Your task to perform on an android device: toggle javascript in the chrome app Image 0: 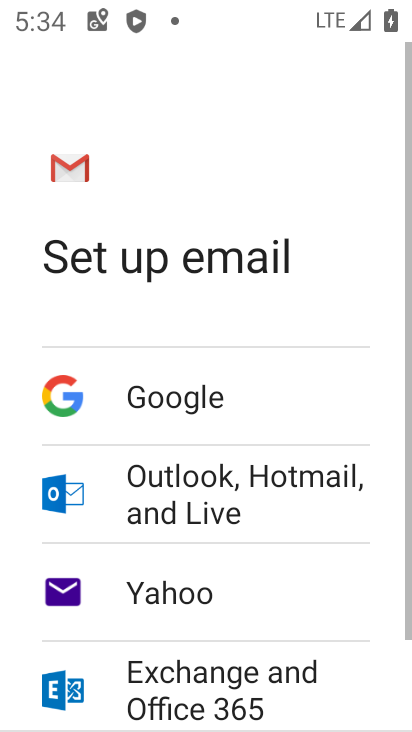
Step 0: drag from (197, 570) to (229, 351)
Your task to perform on an android device: toggle javascript in the chrome app Image 1: 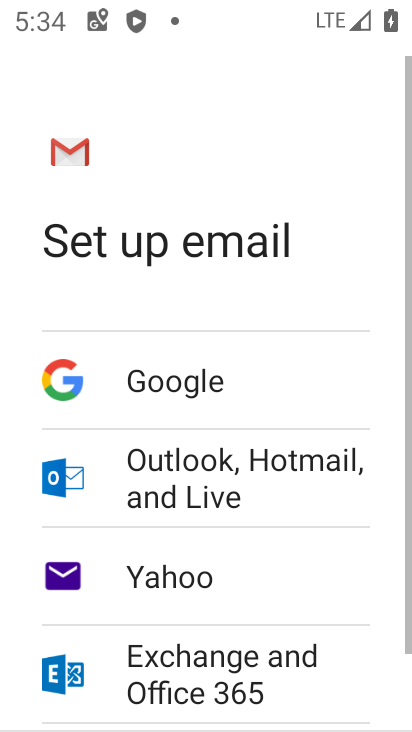
Step 1: press home button
Your task to perform on an android device: toggle javascript in the chrome app Image 2: 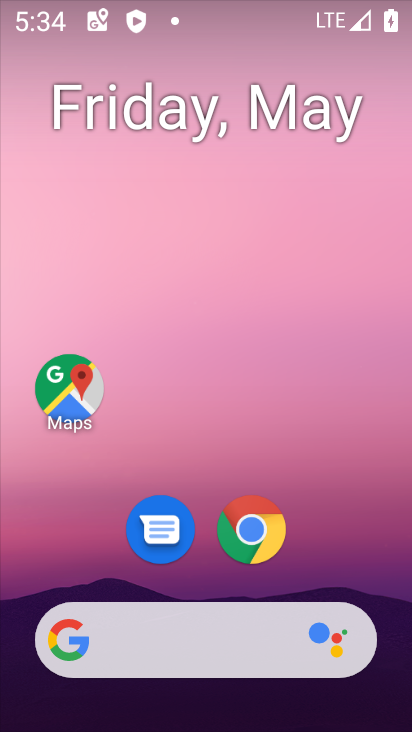
Step 2: click (249, 533)
Your task to perform on an android device: toggle javascript in the chrome app Image 3: 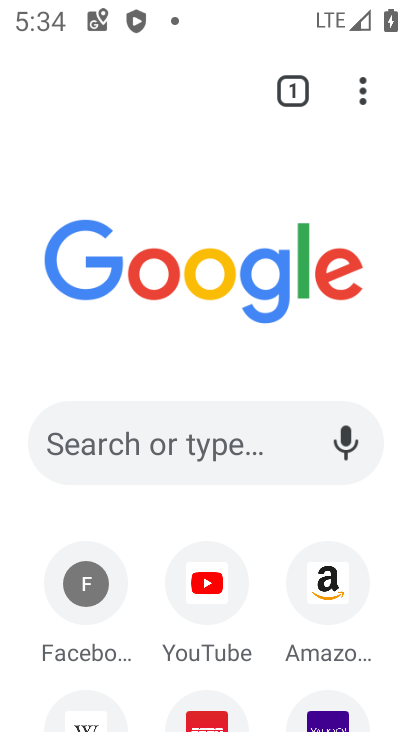
Step 3: click (348, 105)
Your task to perform on an android device: toggle javascript in the chrome app Image 4: 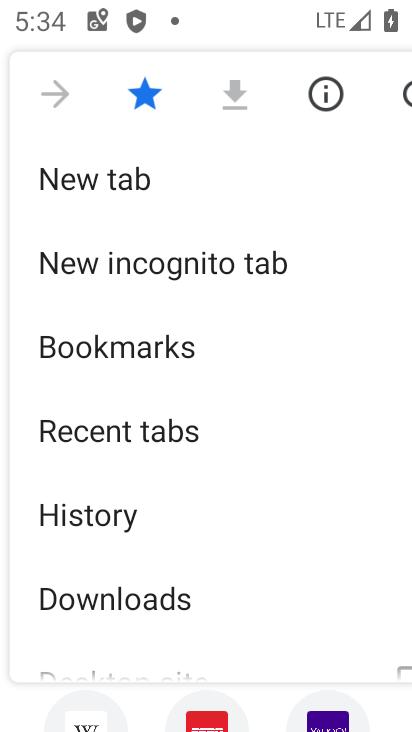
Step 4: drag from (136, 549) to (147, 270)
Your task to perform on an android device: toggle javascript in the chrome app Image 5: 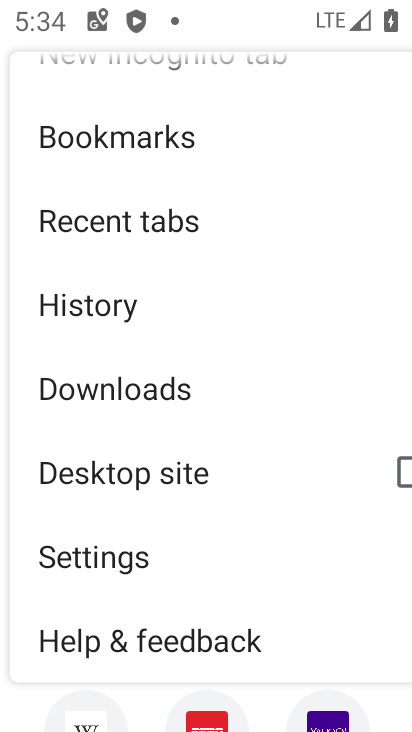
Step 5: click (125, 557)
Your task to perform on an android device: toggle javascript in the chrome app Image 6: 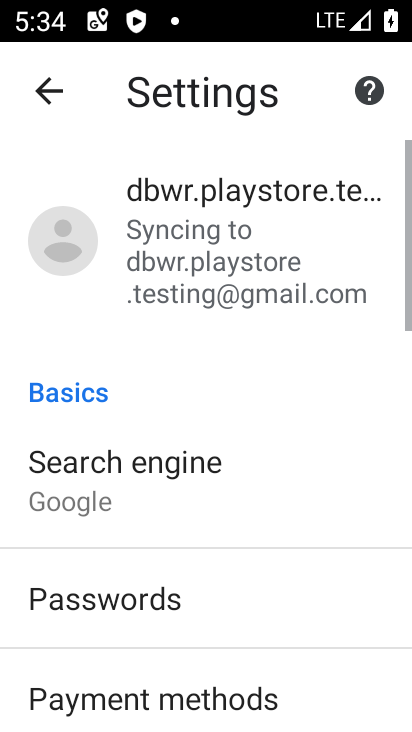
Step 6: drag from (125, 557) to (134, 313)
Your task to perform on an android device: toggle javascript in the chrome app Image 7: 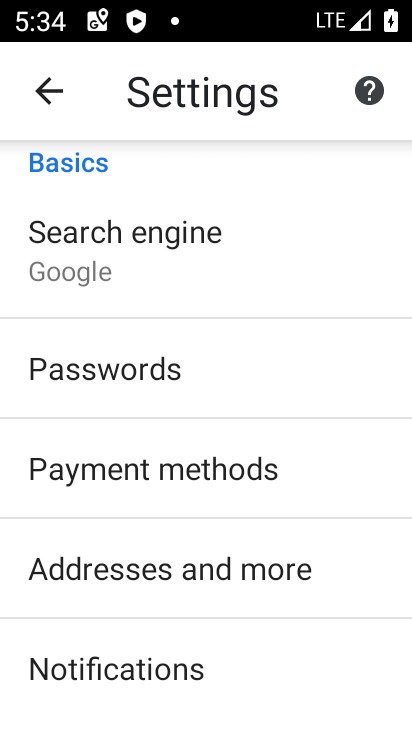
Step 7: drag from (211, 679) to (245, 469)
Your task to perform on an android device: toggle javascript in the chrome app Image 8: 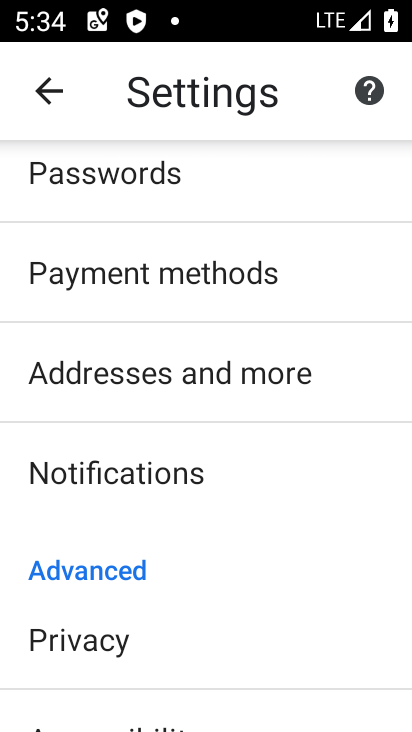
Step 8: drag from (66, 612) to (163, 202)
Your task to perform on an android device: toggle javascript in the chrome app Image 9: 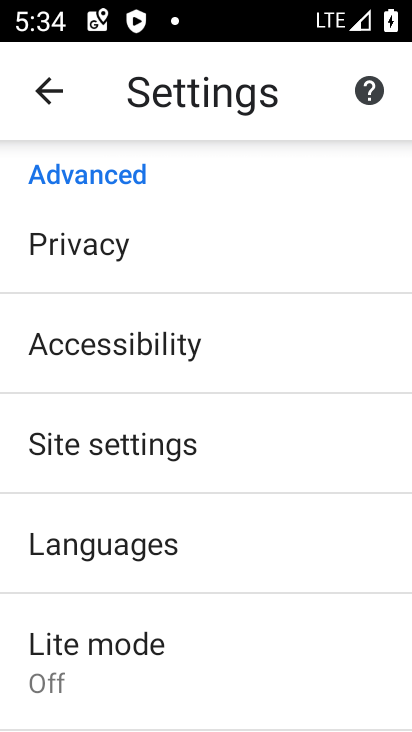
Step 9: click (138, 408)
Your task to perform on an android device: toggle javascript in the chrome app Image 10: 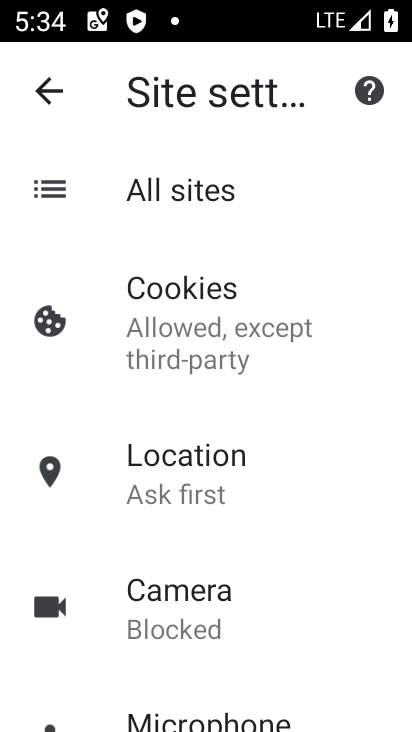
Step 10: drag from (91, 652) to (242, 95)
Your task to perform on an android device: toggle javascript in the chrome app Image 11: 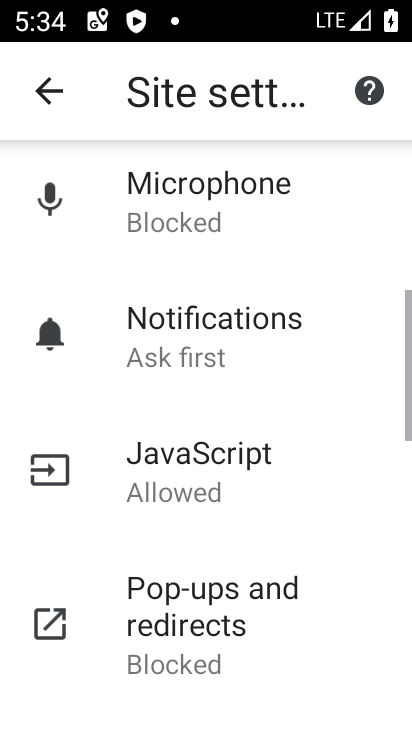
Step 11: click (155, 460)
Your task to perform on an android device: toggle javascript in the chrome app Image 12: 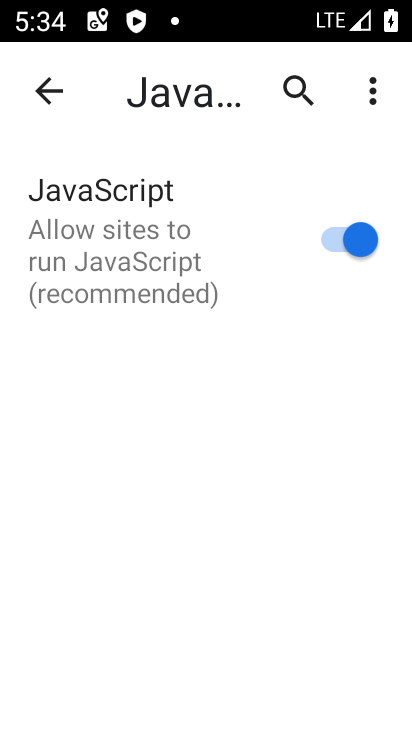
Step 12: task complete